Your task to perform on an android device: Go to accessibility settings Image 0: 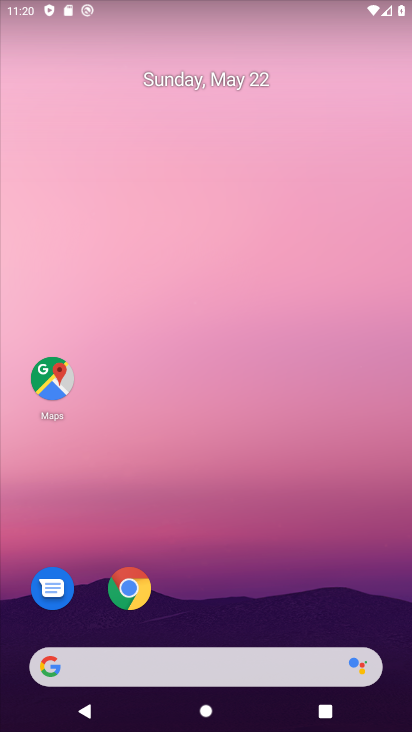
Step 0: press home button
Your task to perform on an android device: Go to accessibility settings Image 1: 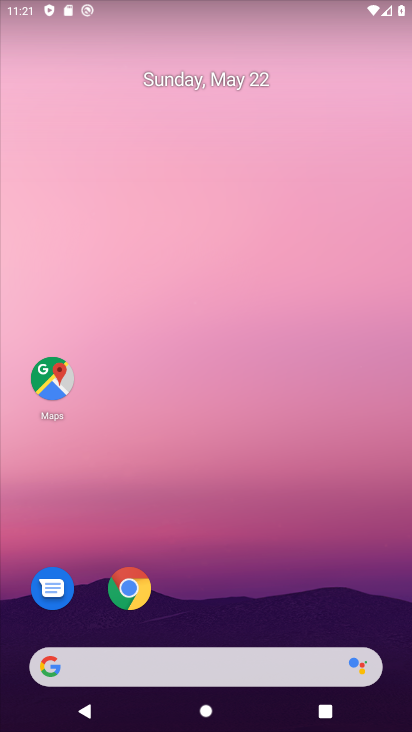
Step 1: drag from (240, 693) to (233, 17)
Your task to perform on an android device: Go to accessibility settings Image 2: 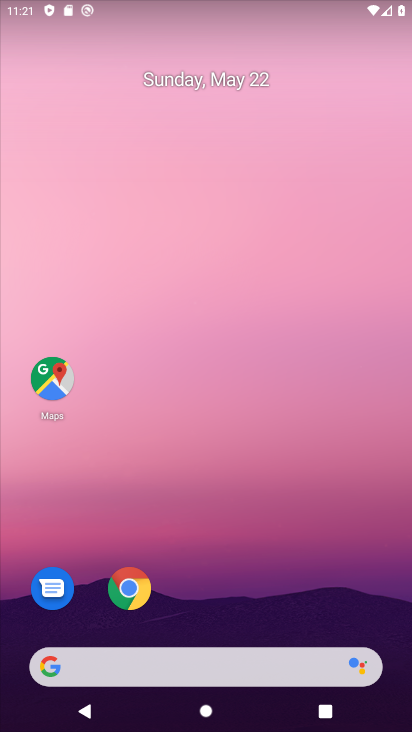
Step 2: drag from (237, 687) to (262, 41)
Your task to perform on an android device: Go to accessibility settings Image 3: 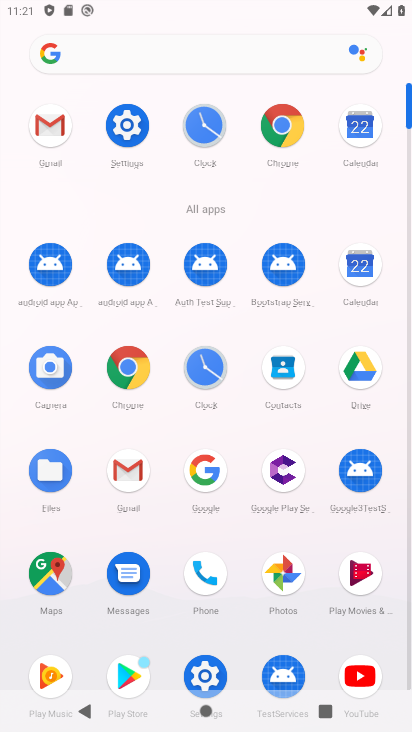
Step 3: click (136, 130)
Your task to perform on an android device: Go to accessibility settings Image 4: 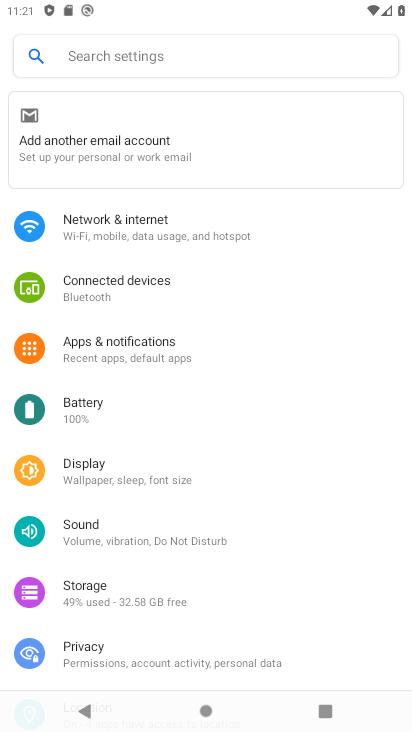
Step 4: click (115, 56)
Your task to perform on an android device: Go to accessibility settings Image 5: 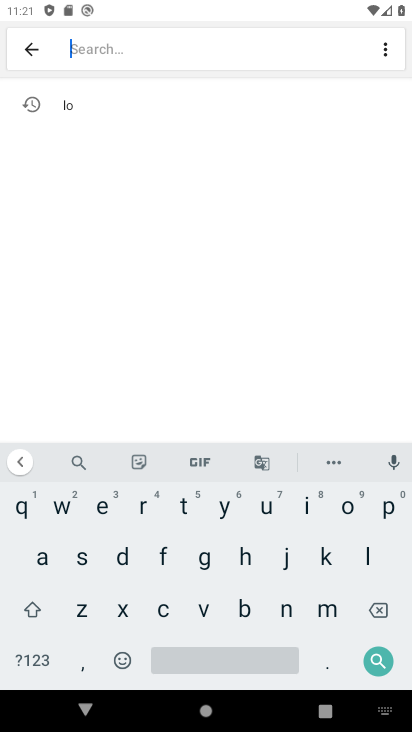
Step 5: click (31, 550)
Your task to perform on an android device: Go to accessibility settings Image 6: 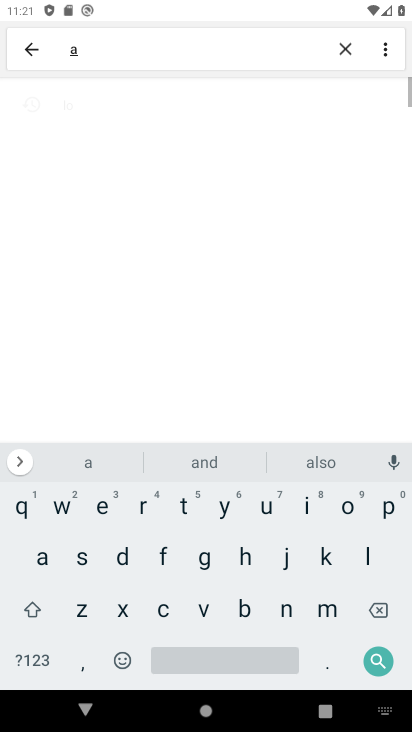
Step 6: click (156, 608)
Your task to perform on an android device: Go to accessibility settings Image 7: 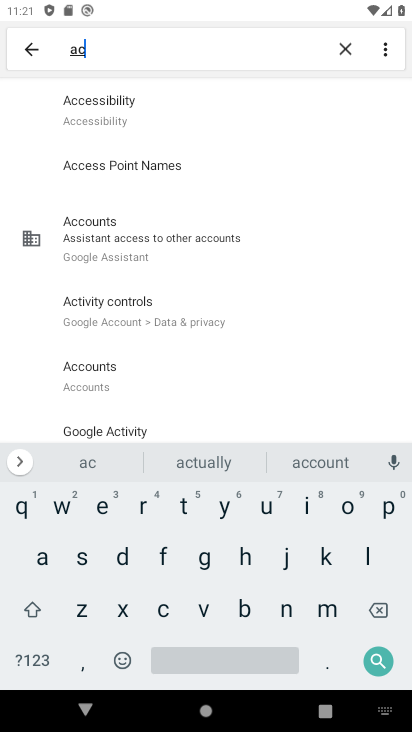
Step 7: click (110, 114)
Your task to perform on an android device: Go to accessibility settings Image 8: 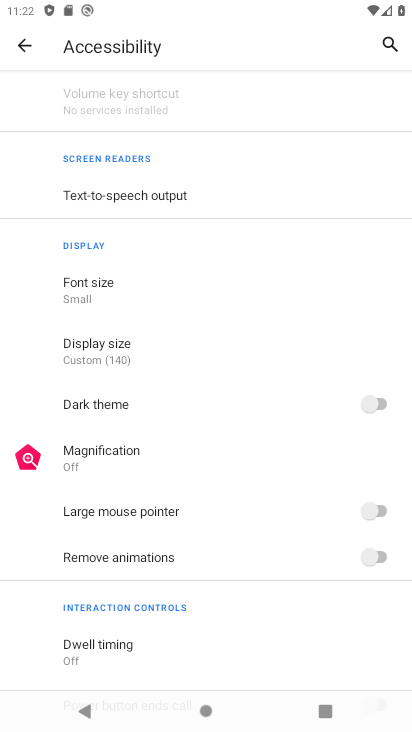
Step 8: task complete